Your task to perform on an android device: open chrome privacy settings Image 0: 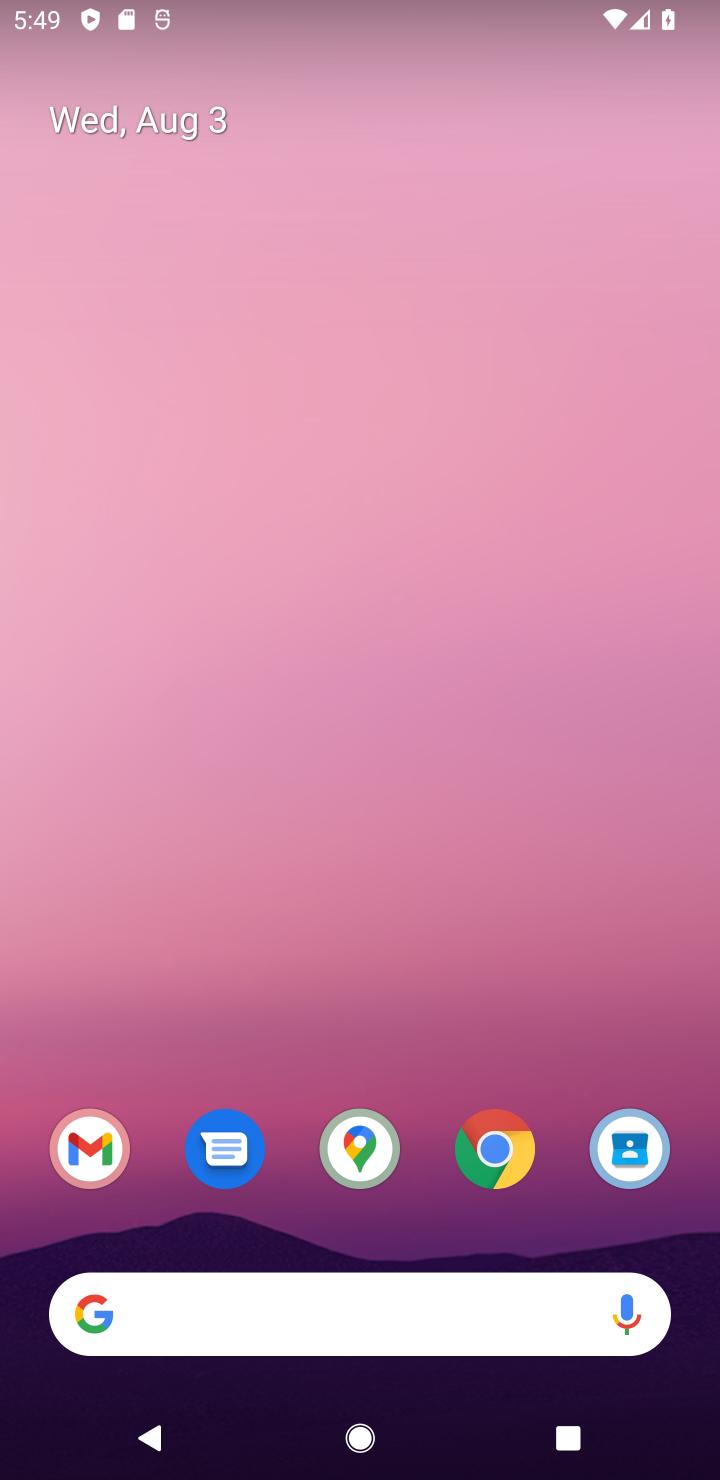
Step 0: click (710, 1307)
Your task to perform on an android device: open chrome privacy settings Image 1: 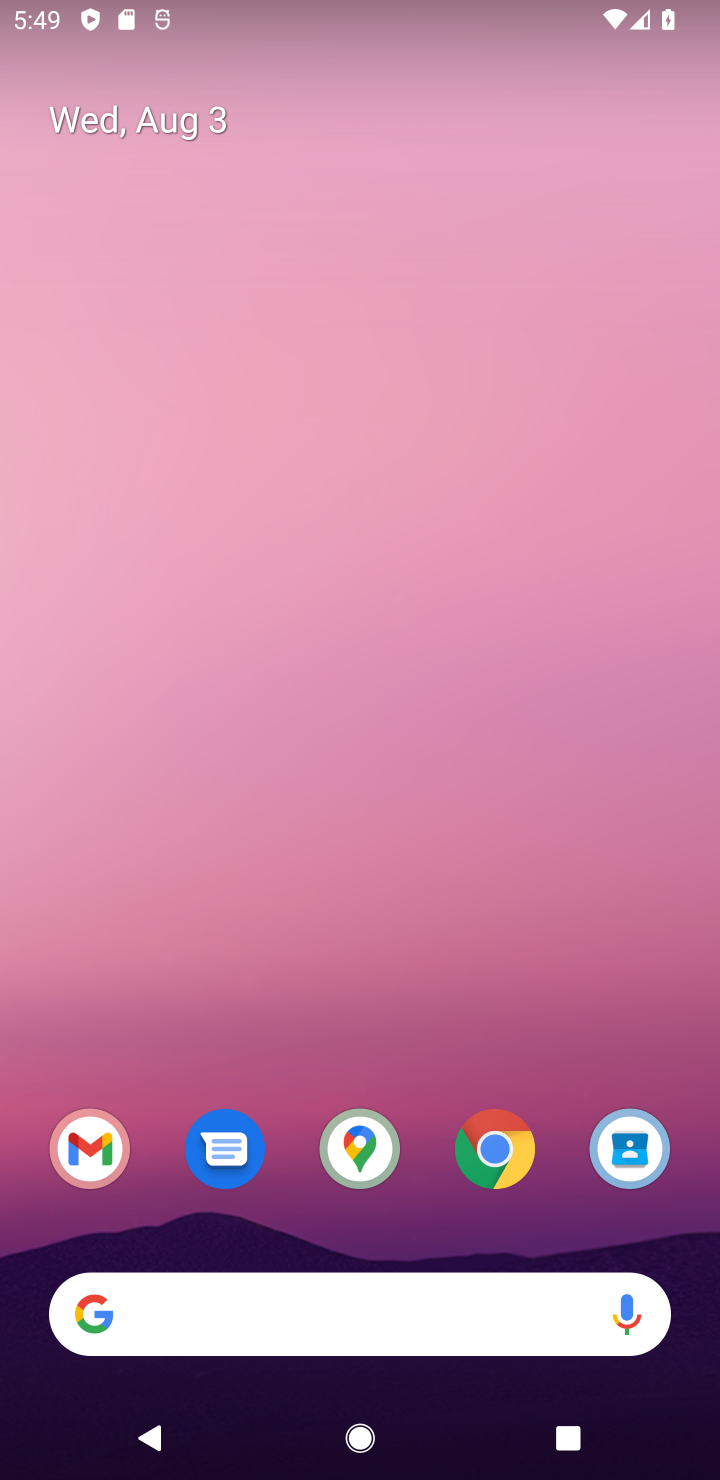
Step 1: click (468, 1144)
Your task to perform on an android device: open chrome privacy settings Image 2: 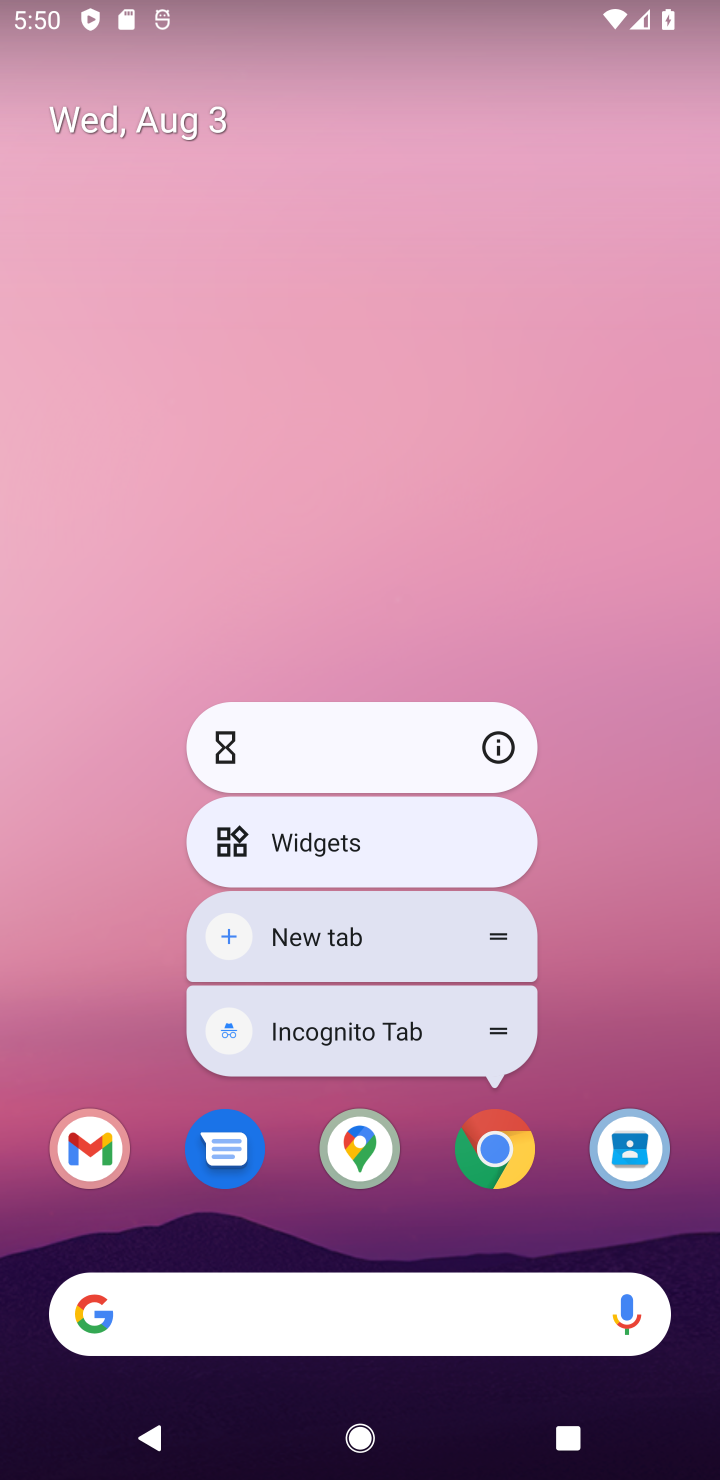
Step 2: click (493, 1179)
Your task to perform on an android device: open chrome privacy settings Image 3: 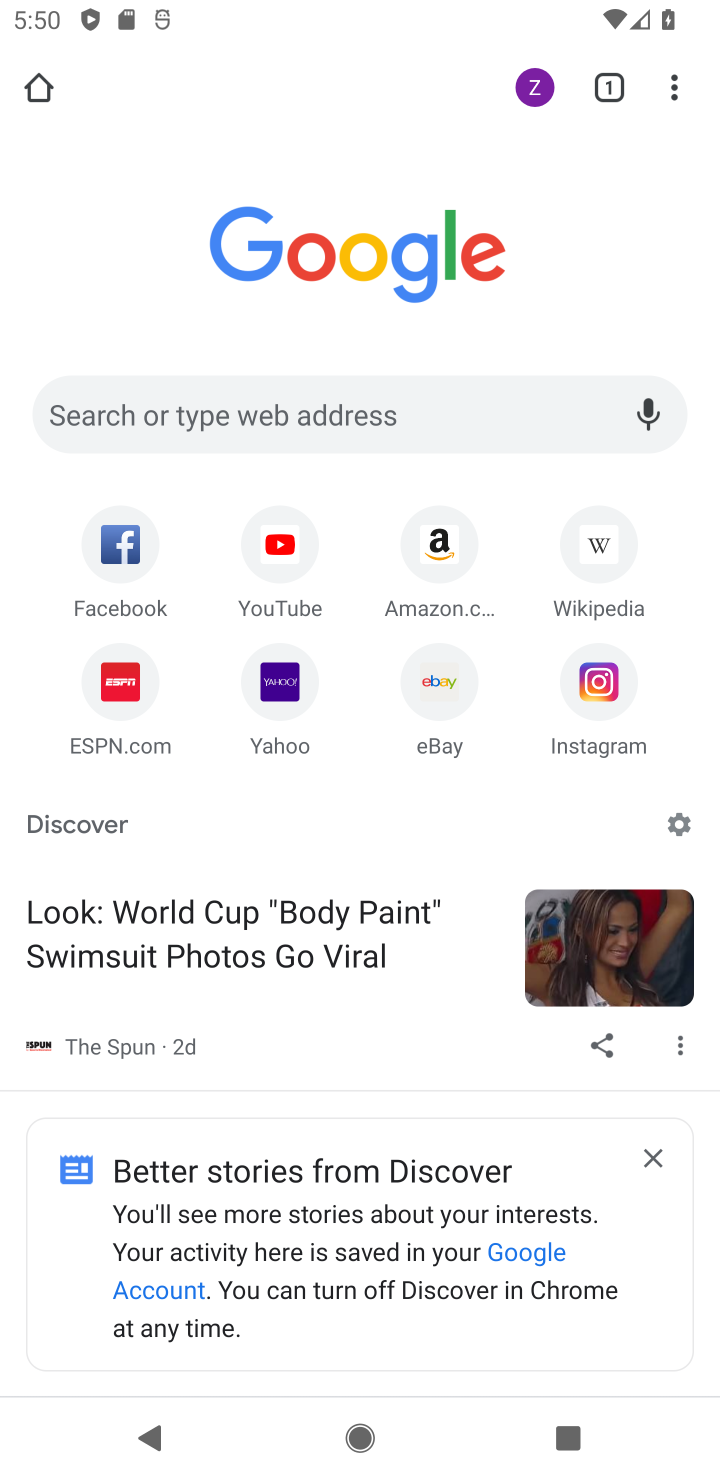
Step 3: drag from (669, 101) to (478, 762)
Your task to perform on an android device: open chrome privacy settings Image 4: 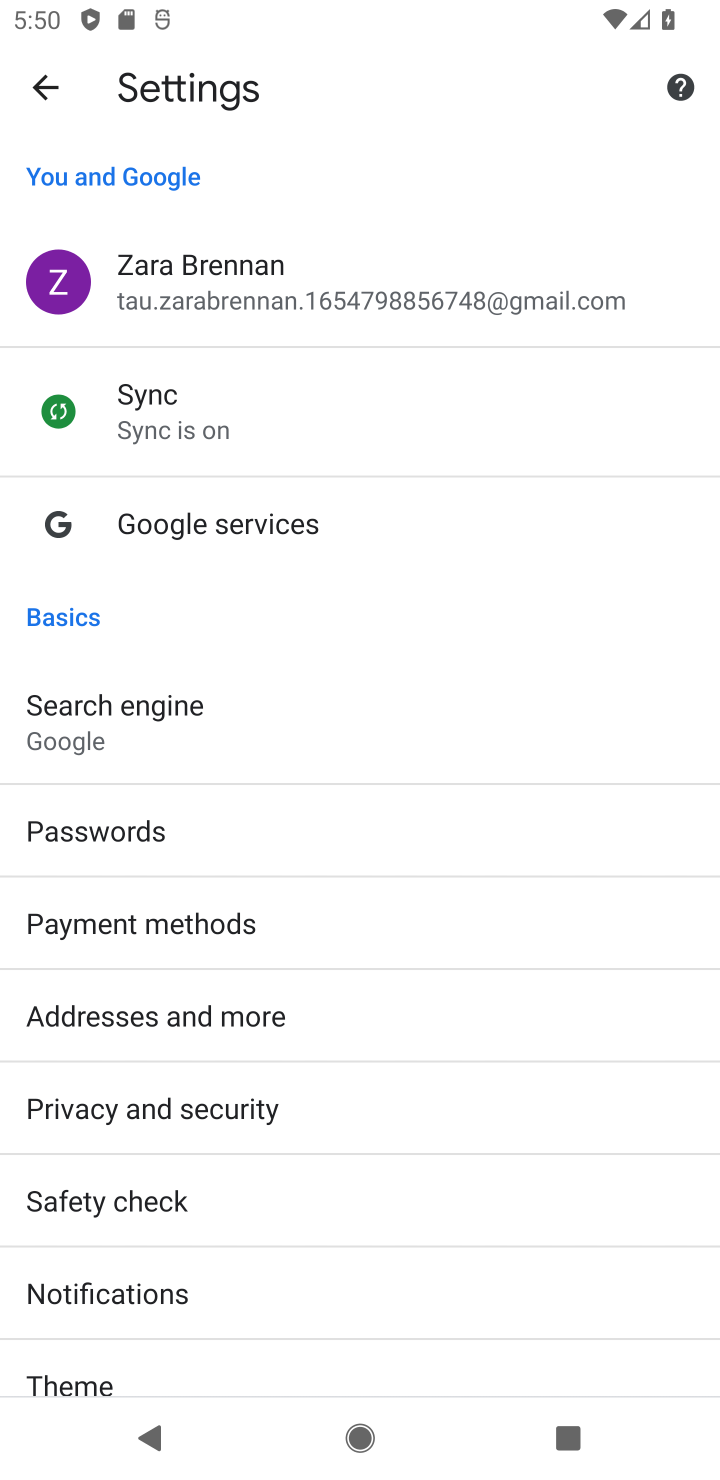
Step 4: click (198, 1120)
Your task to perform on an android device: open chrome privacy settings Image 5: 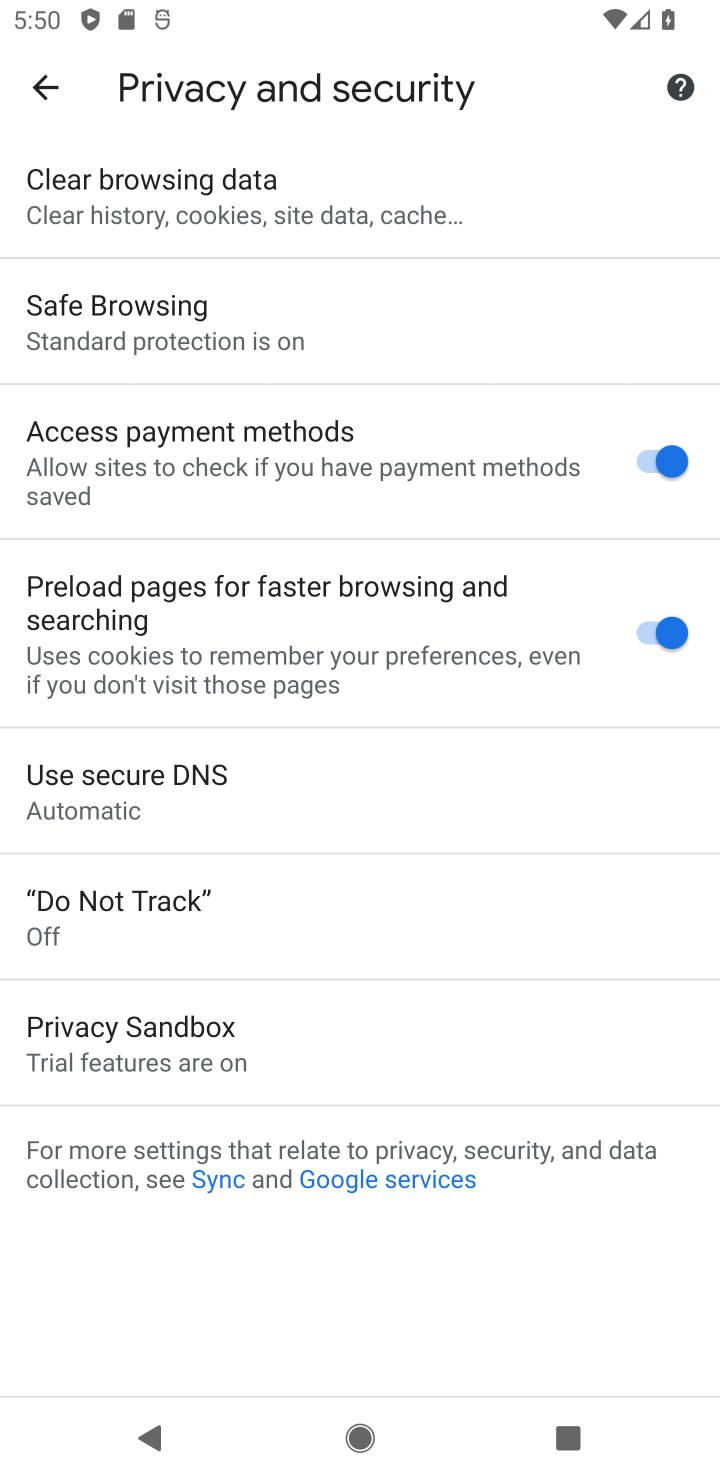
Step 5: task complete